Your task to perform on an android device: turn off airplane mode Image 0: 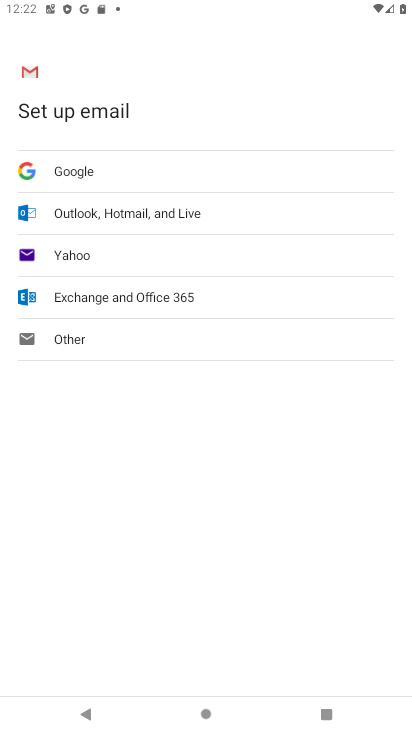
Step 0: press home button
Your task to perform on an android device: turn off airplane mode Image 1: 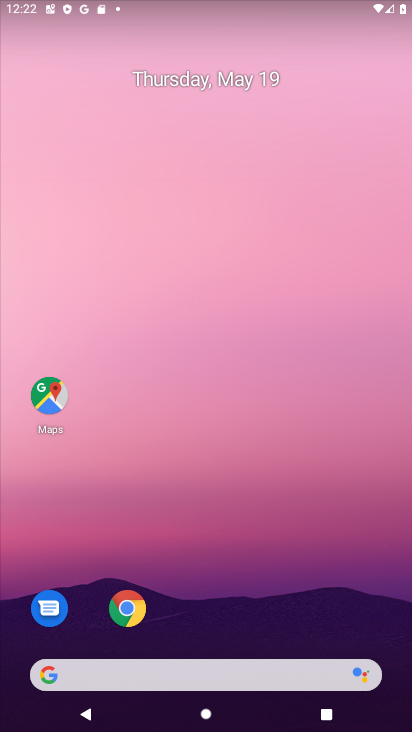
Step 1: drag from (206, 513) to (214, 251)
Your task to perform on an android device: turn off airplane mode Image 2: 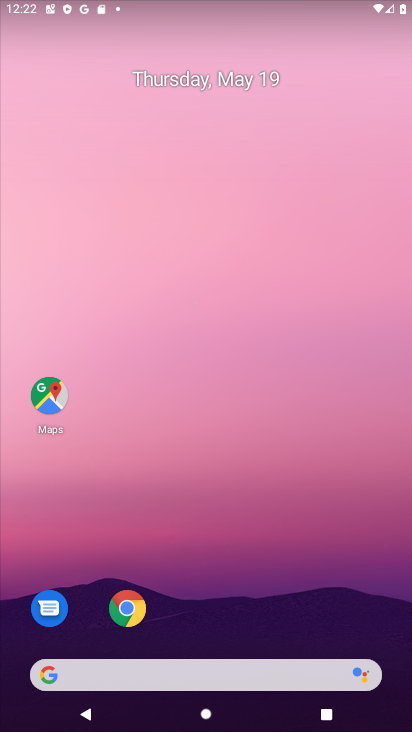
Step 2: drag from (250, 537) to (247, 219)
Your task to perform on an android device: turn off airplane mode Image 3: 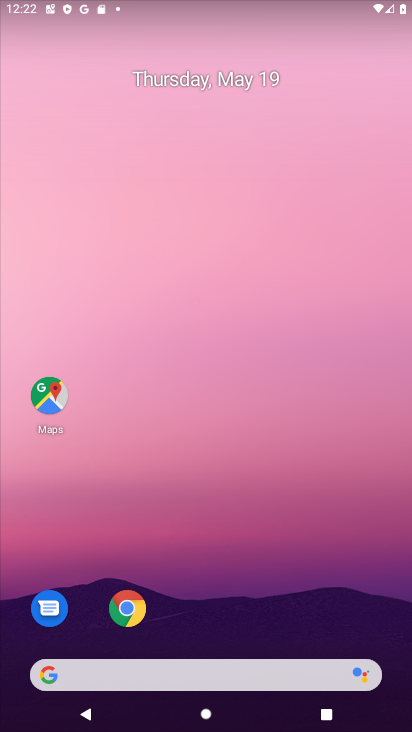
Step 3: drag from (253, 614) to (251, 153)
Your task to perform on an android device: turn off airplane mode Image 4: 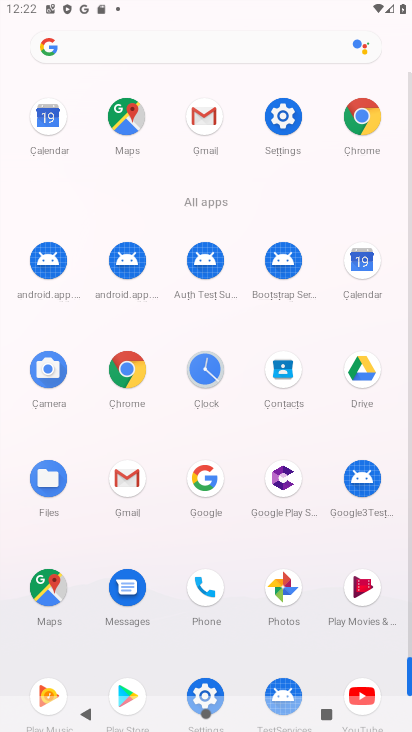
Step 4: click (278, 118)
Your task to perform on an android device: turn off airplane mode Image 5: 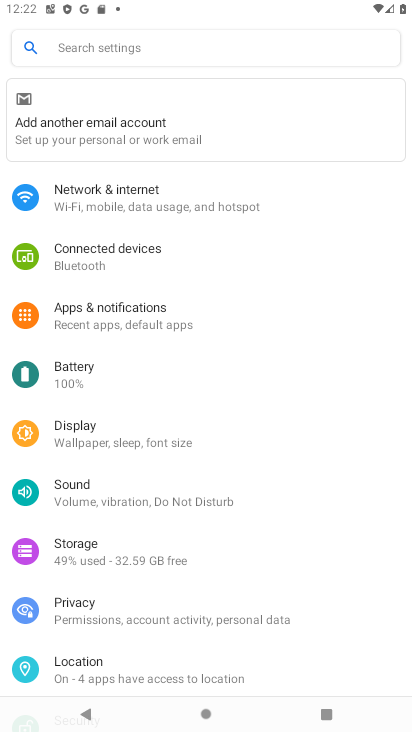
Step 5: click (140, 201)
Your task to perform on an android device: turn off airplane mode Image 6: 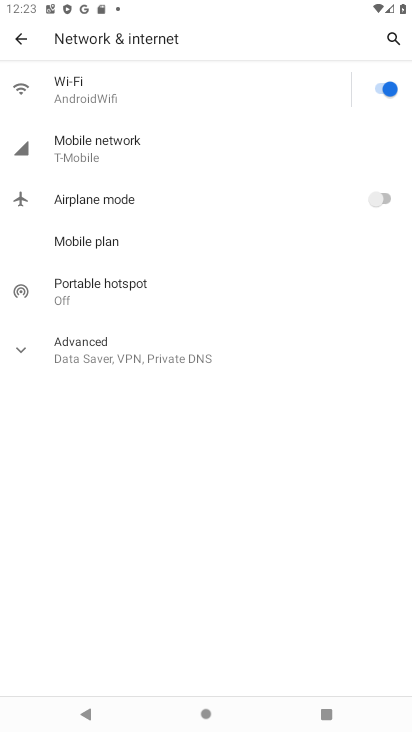
Step 6: task complete